Your task to perform on an android device: turn on translation in the chrome app Image 0: 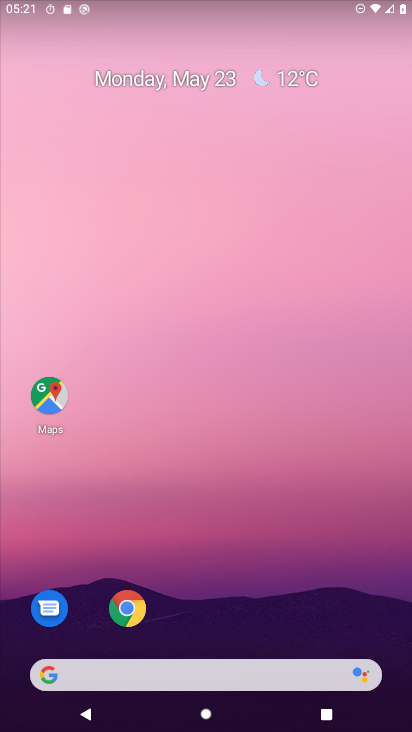
Step 0: click (120, 594)
Your task to perform on an android device: turn on translation in the chrome app Image 1: 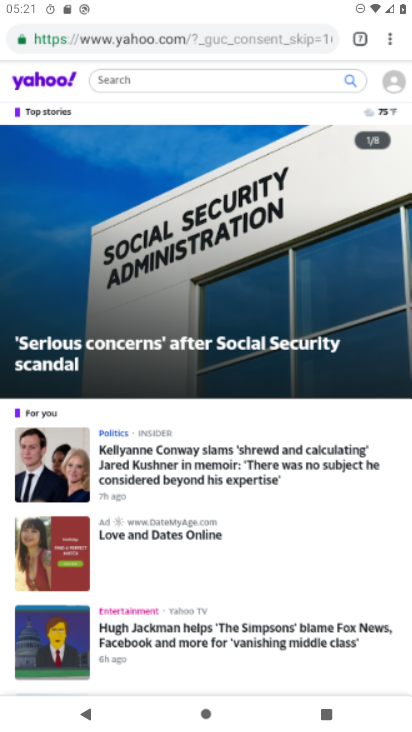
Step 1: click (393, 31)
Your task to perform on an android device: turn on translation in the chrome app Image 2: 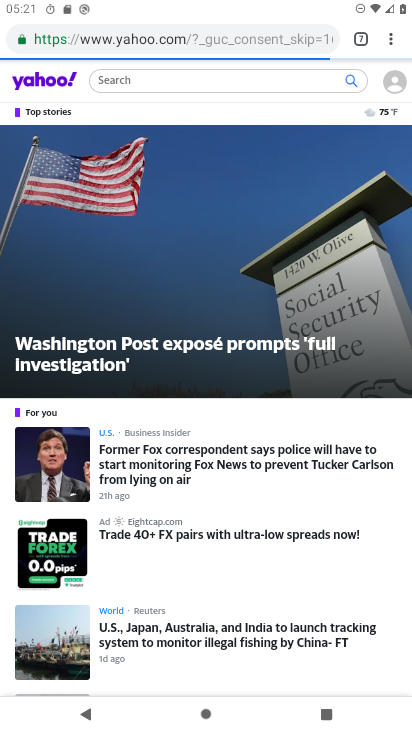
Step 2: click (383, 35)
Your task to perform on an android device: turn on translation in the chrome app Image 3: 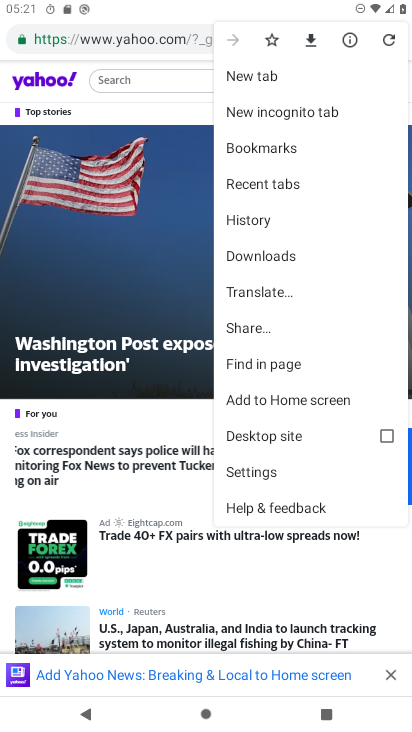
Step 3: click (247, 457)
Your task to perform on an android device: turn on translation in the chrome app Image 4: 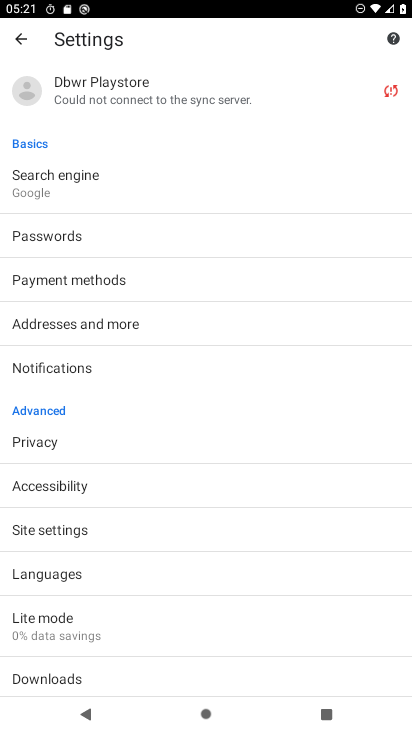
Step 4: click (113, 568)
Your task to perform on an android device: turn on translation in the chrome app Image 5: 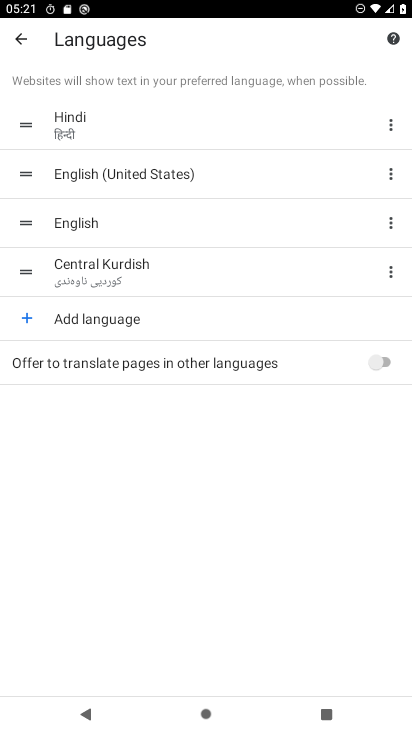
Step 5: click (377, 370)
Your task to perform on an android device: turn on translation in the chrome app Image 6: 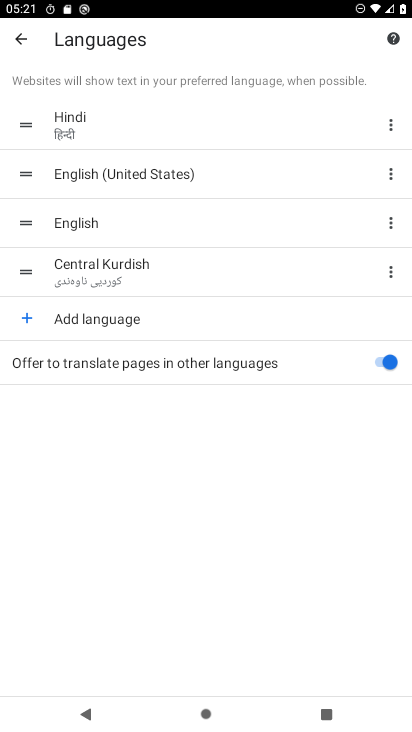
Step 6: task complete